Your task to perform on an android device: open app "DoorDash - Food Delivery" Image 0: 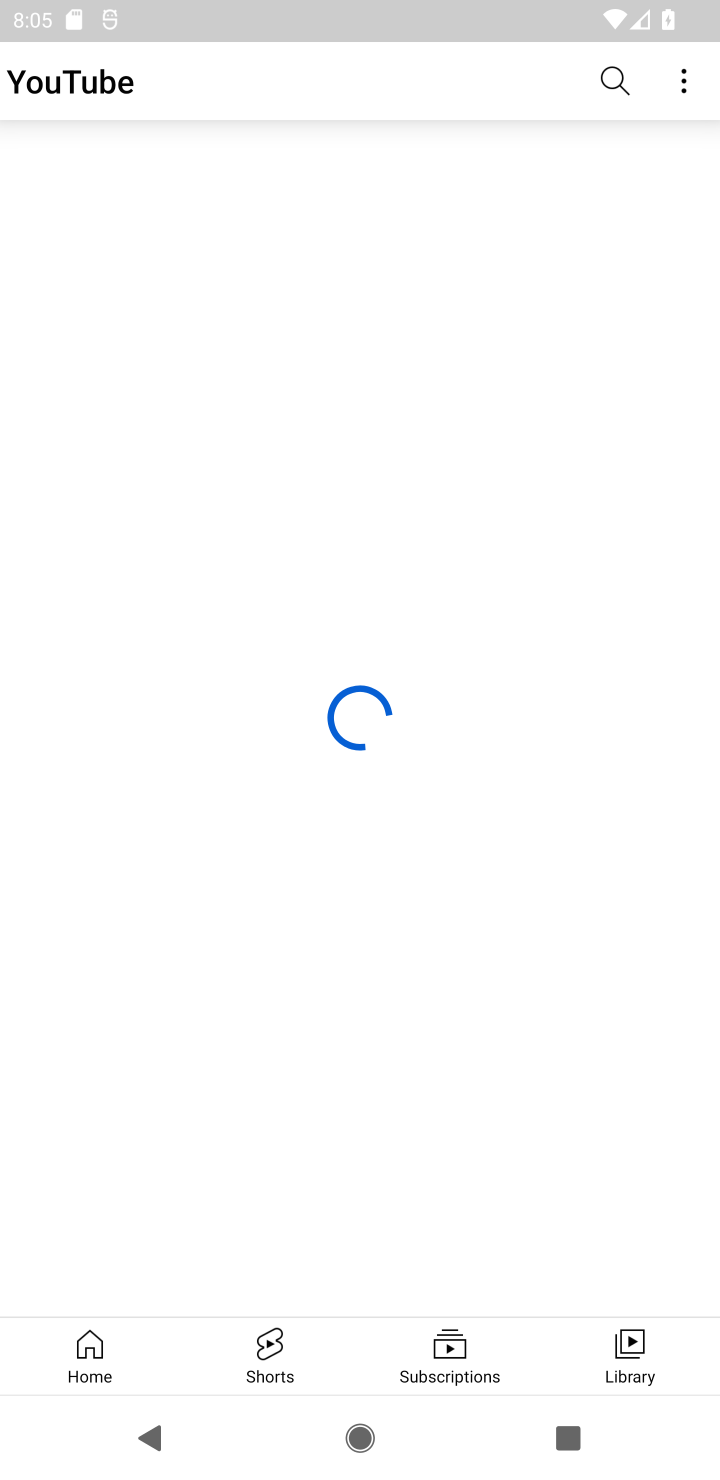
Step 0: press home button
Your task to perform on an android device: open app "DoorDash - Food Delivery" Image 1: 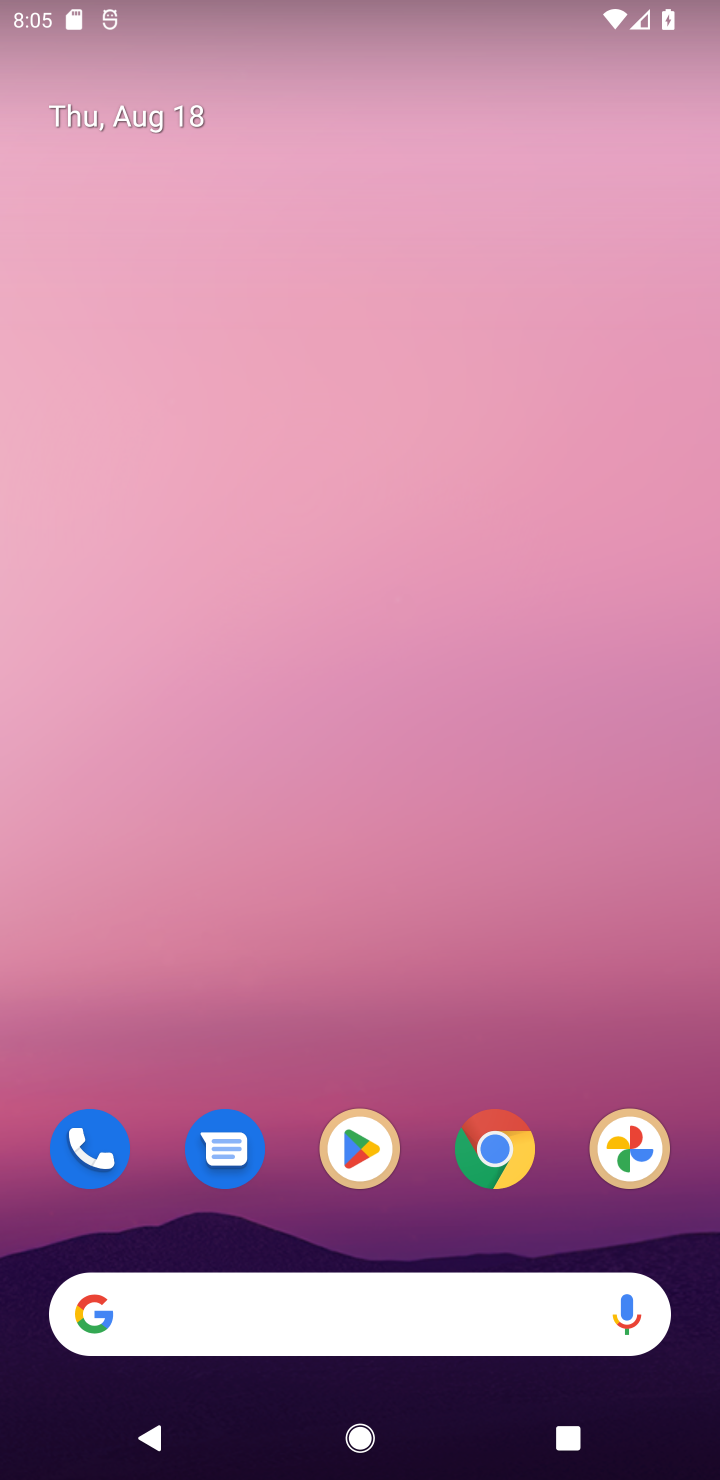
Step 1: drag from (685, 1239) to (257, 23)
Your task to perform on an android device: open app "DoorDash - Food Delivery" Image 2: 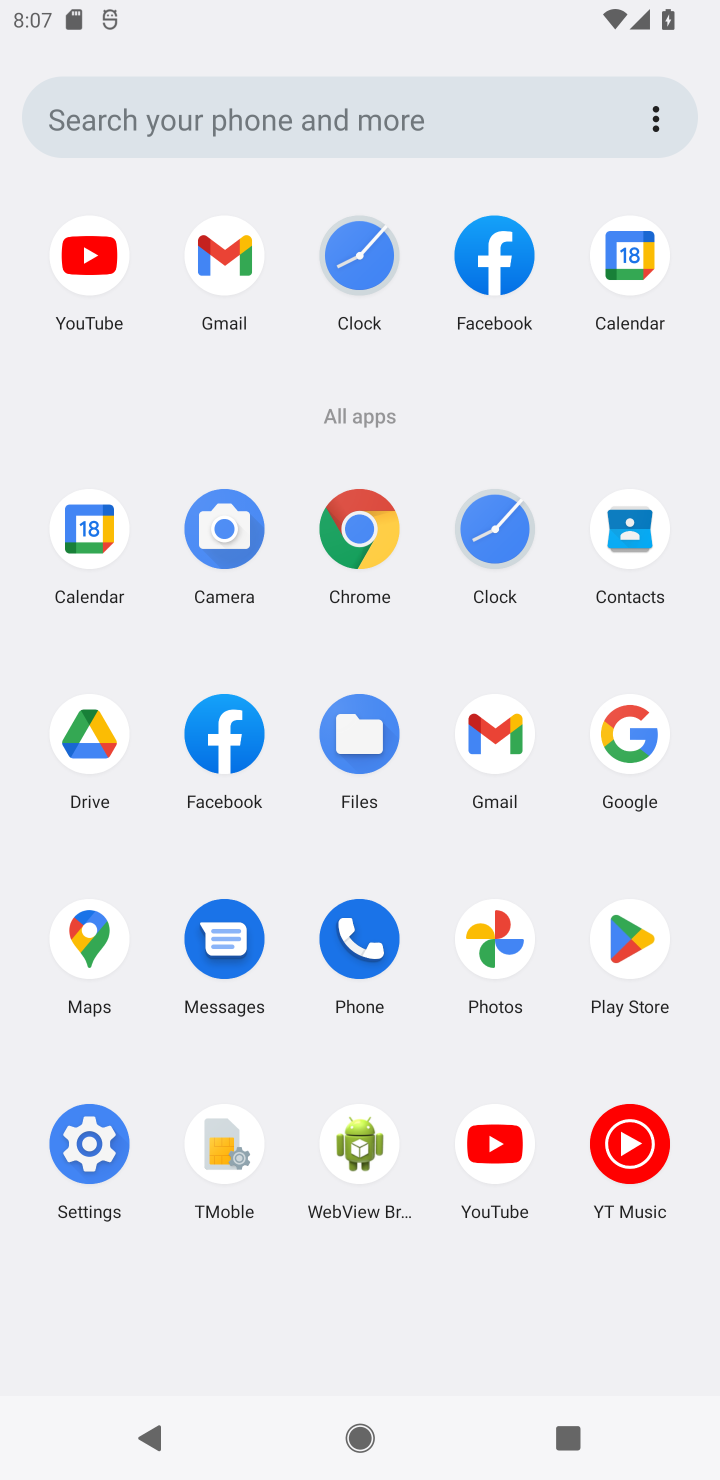
Step 2: click (635, 939)
Your task to perform on an android device: open app "DoorDash - Food Delivery" Image 3: 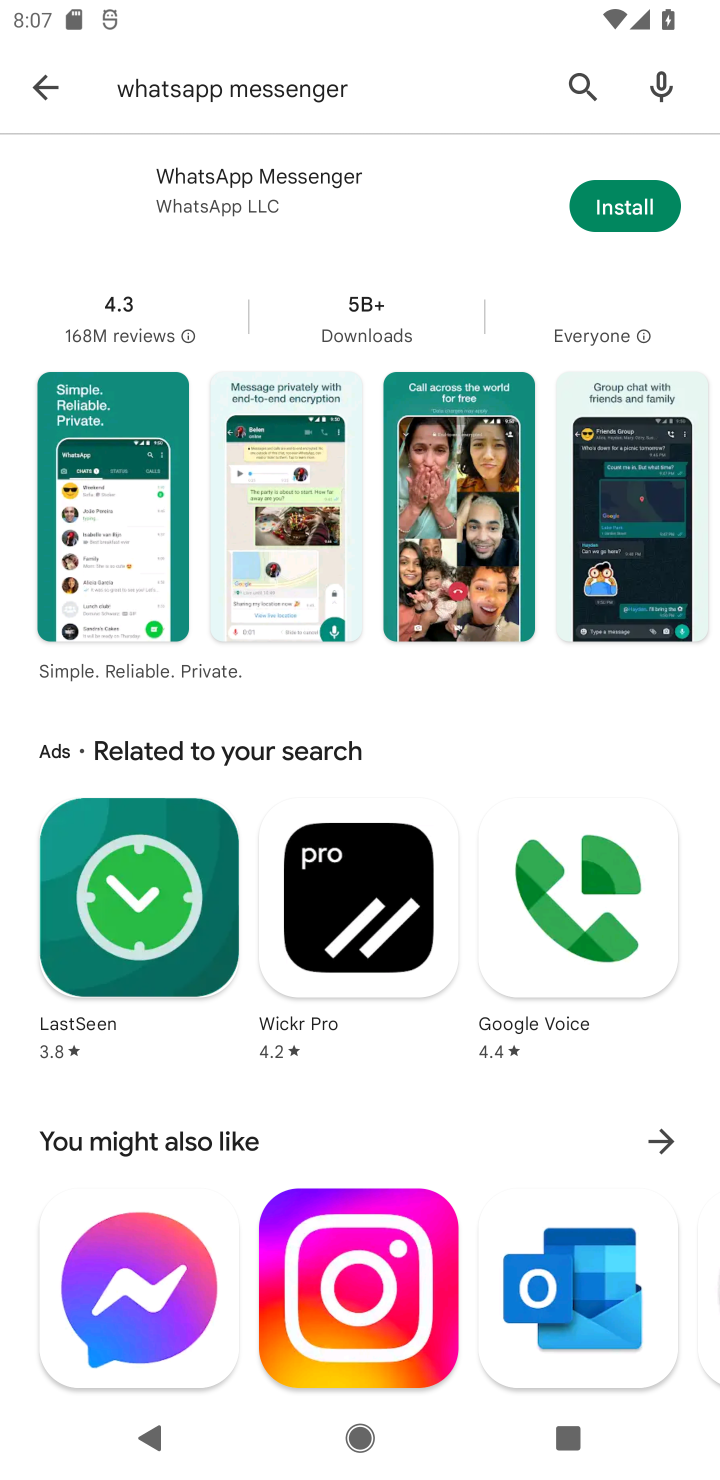
Step 3: press back button
Your task to perform on an android device: open app "DoorDash - Food Delivery" Image 4: 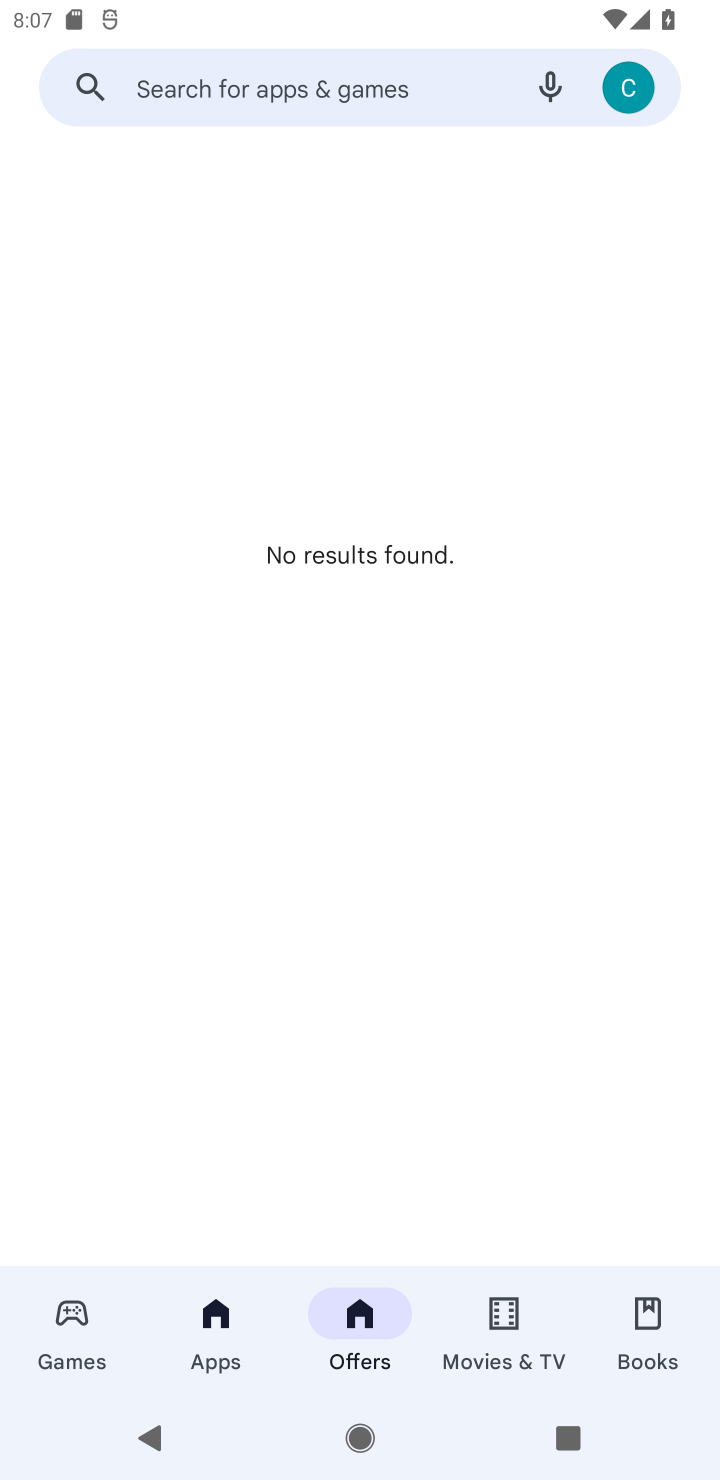
Step 4: click (328, 74)
Your task to perform on an android device: open app "DoorDash - Food Delivery" Image 5: 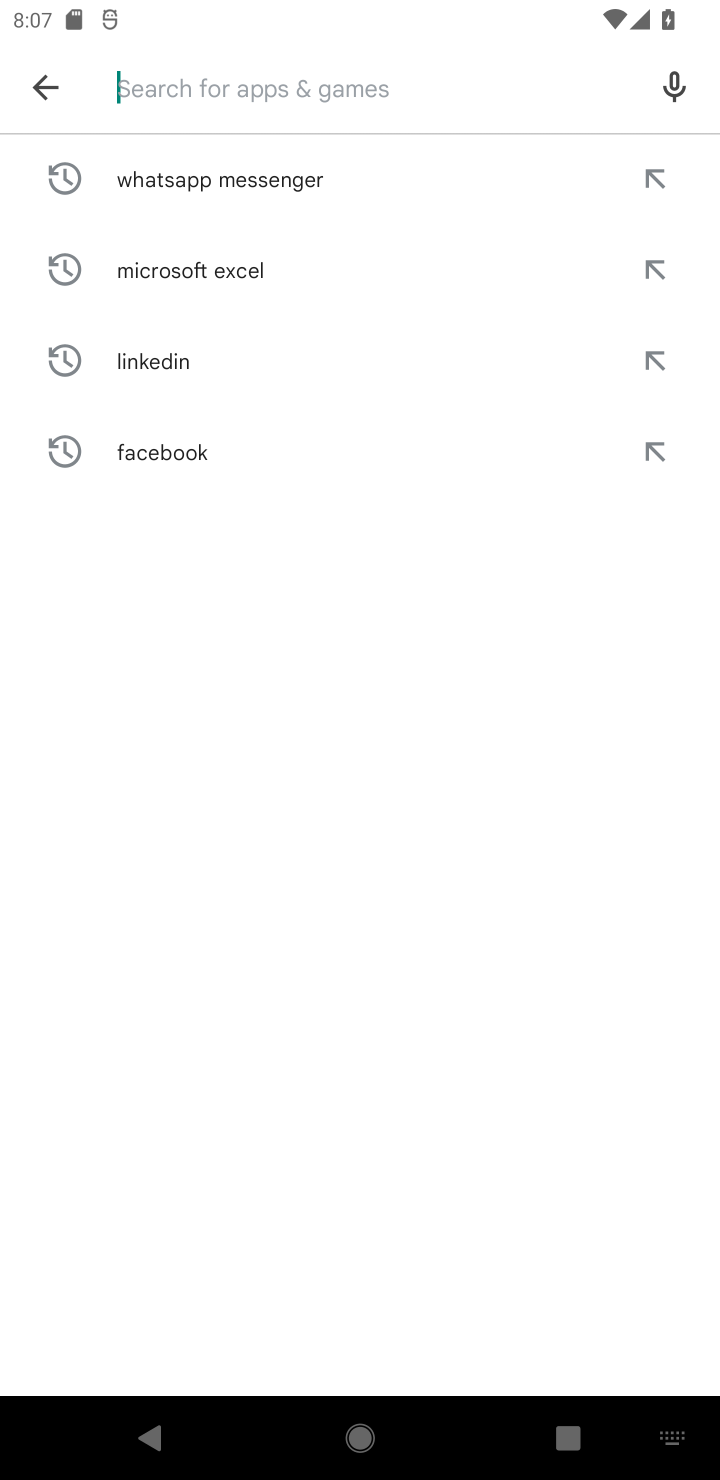
Step 5: type "DoorDash - Food Delivery"
Your task to perform on an android device: open app "DoorDash - Food Delivery" Image 6: 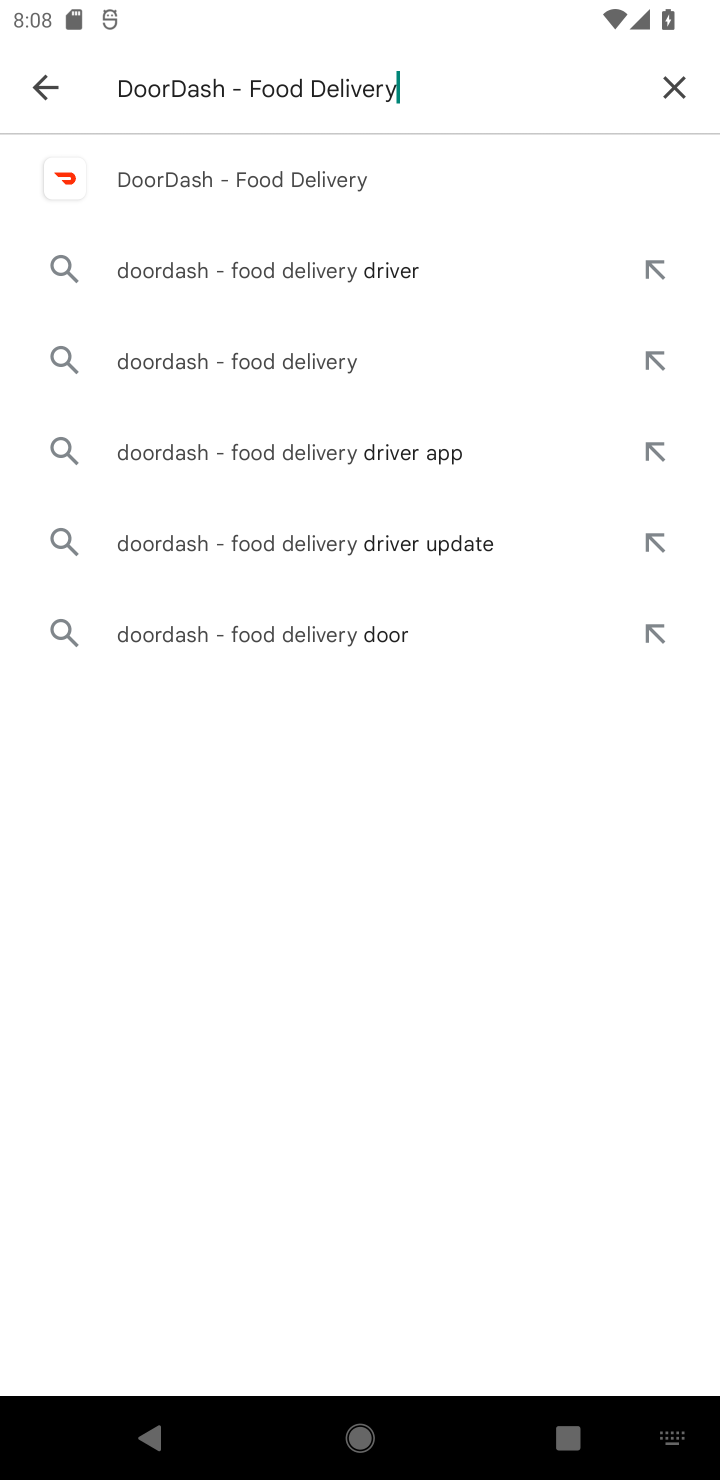
Step 6: click (189, 192)
Your task to perform on an android device: open app "DoorDash - Food Delivery" Image 7: 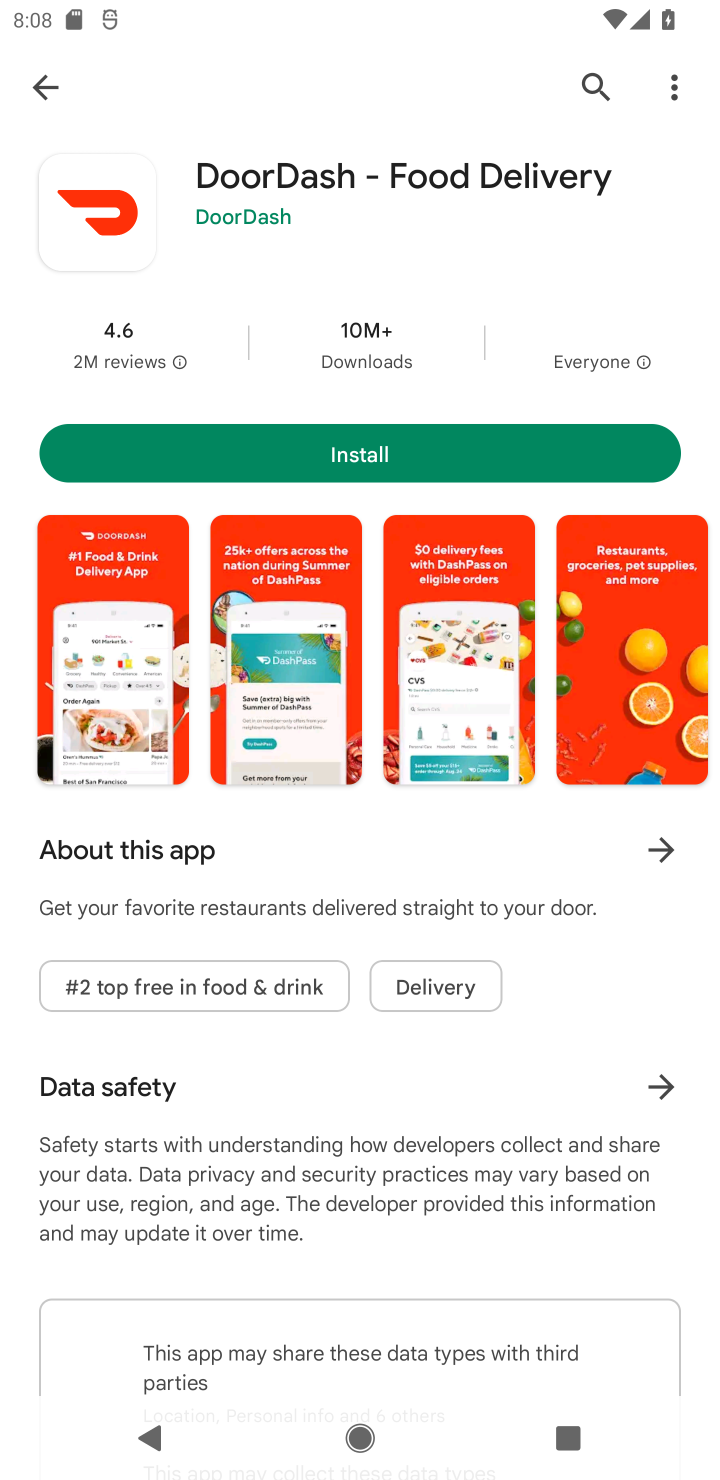
Step 7: task complete